Your task to perform on an android device: Open Wikipedia Image 0: 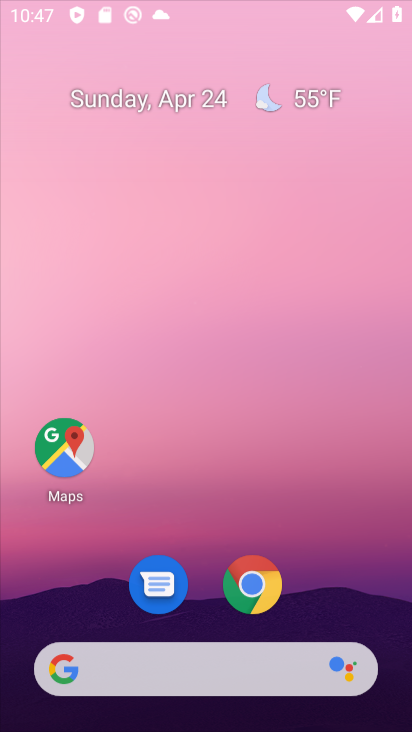
Step 0: click (324, 81)
Your task to perform on an android device: Open Wikipedia Image 1: 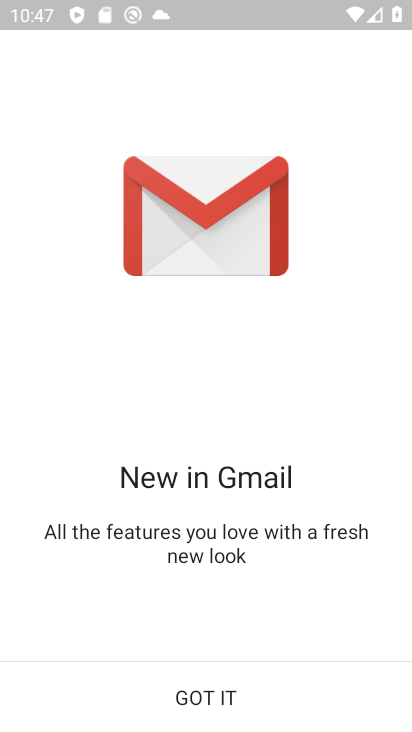
Step 1: drag from (352, 483) to (311, 153)
Your task to perform on an android device: Open Wikipedia Image 2: 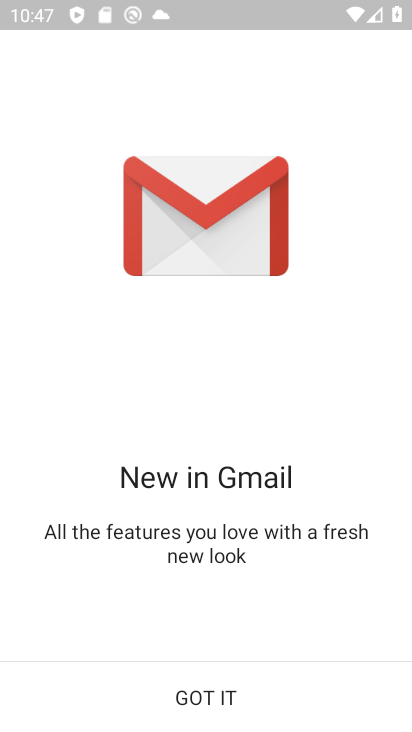
Step 2: click (190, 695)
Your task to perform on an android device: Open Wikipedia Image 3: 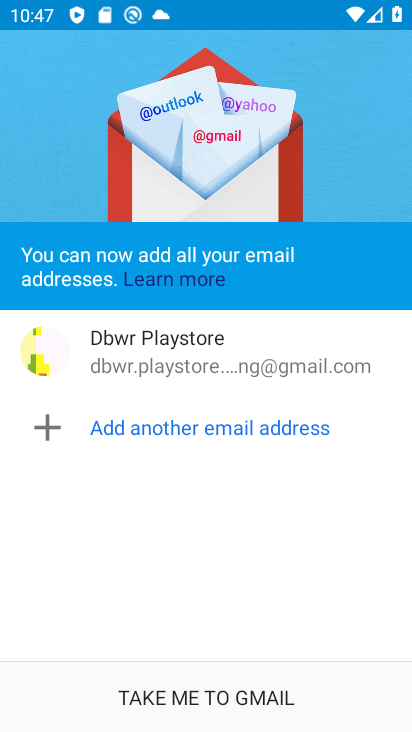
Step 3: click (226, 707)
Your task to perform on an android device: Open Wikipedia Image 4: 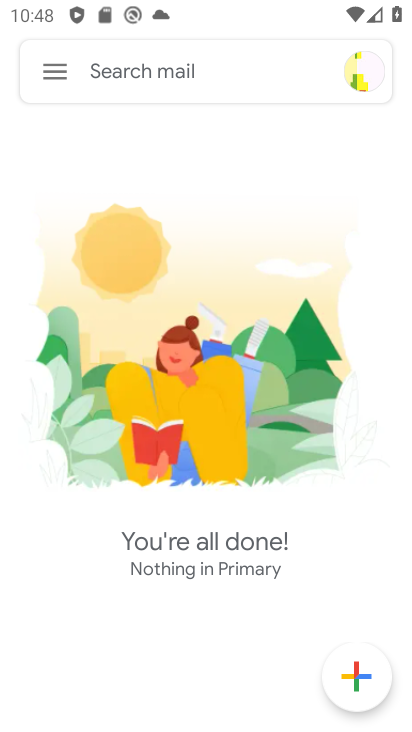
Step 4: press home button
Your task to perform on an android device: Open Wikipedia Image 5: 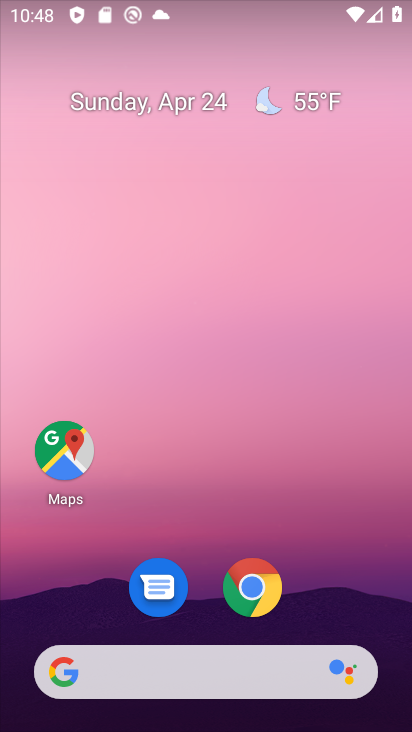
Step 5: drag from (360, 582) to (313, 56)
Your task to perform on an android device: Open Wikipedia Image 6: 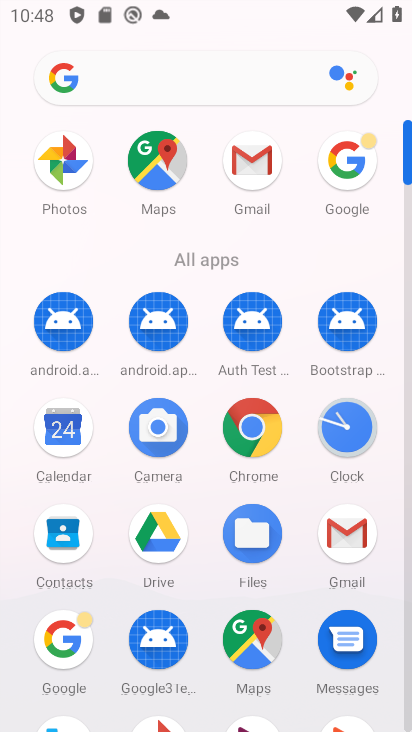
Step 6: click (274, 428)
Your task to perform on an android device: Open Wikipedia Image 7: 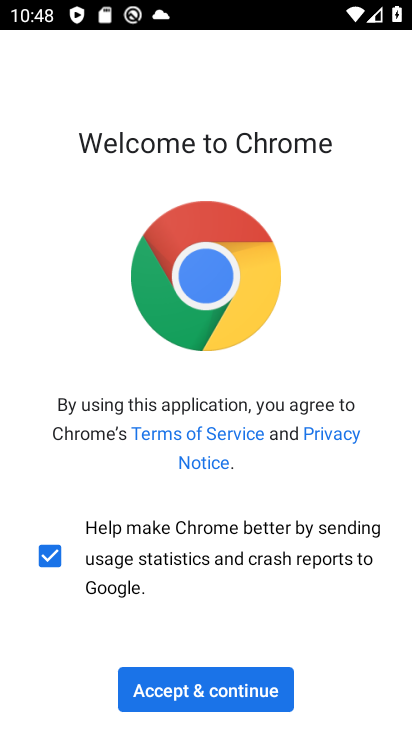
Step 7: click (211, 694)
Your task to perform on an android device: Open Wikipedia Image 8: 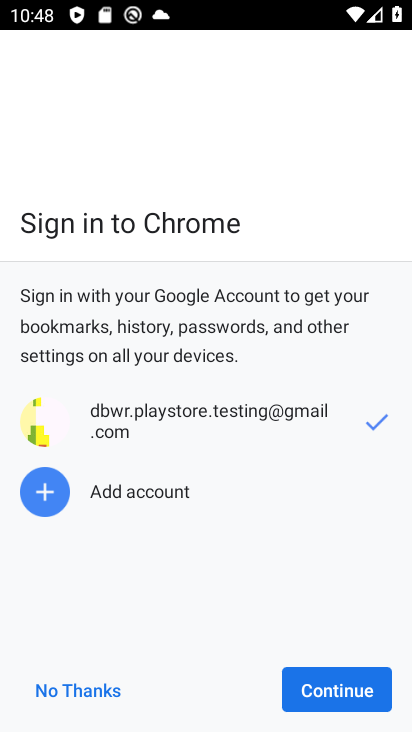
Step 8: click (81, 696)
Your task to perform on an android device: Open Wikipedia Image 9: 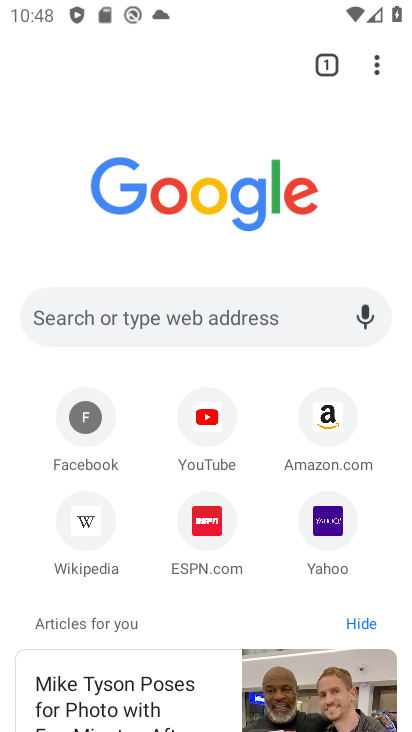
Step 9: click (66, 559)
Your task to perform on an android device: Open Wikipedia Image 10: 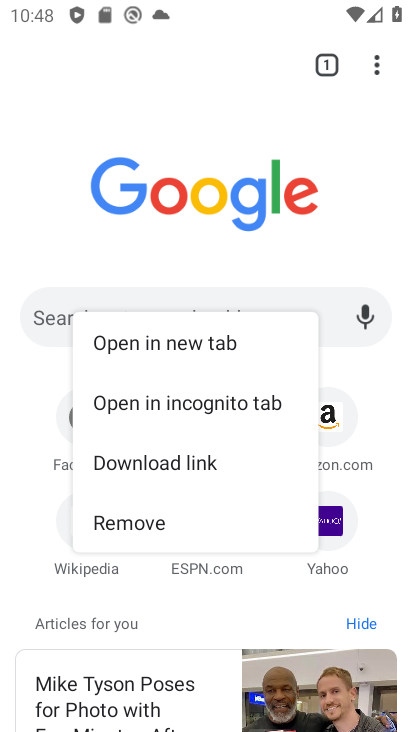
Step 10: click (126, 623)
Your task to perform on an android device: Open Wikipedia Image 11: 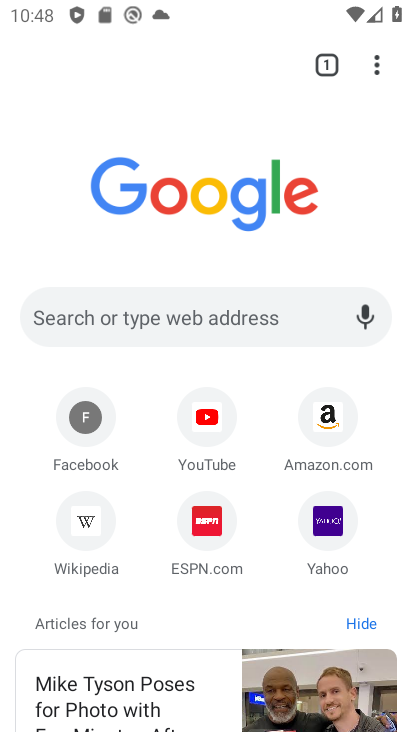
Step 11: click (82, 538)
Your task to perform on an android device: Open Wikipedia Image 12: 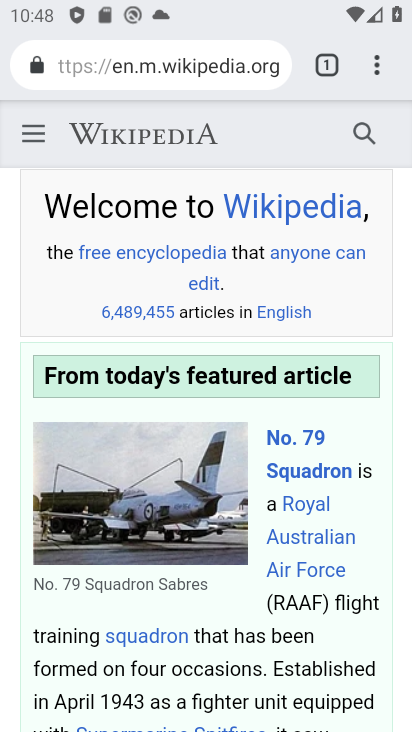
Step 12: task complete